Your task to perform on an android device: Show me the alarms in the clock app Image 0: 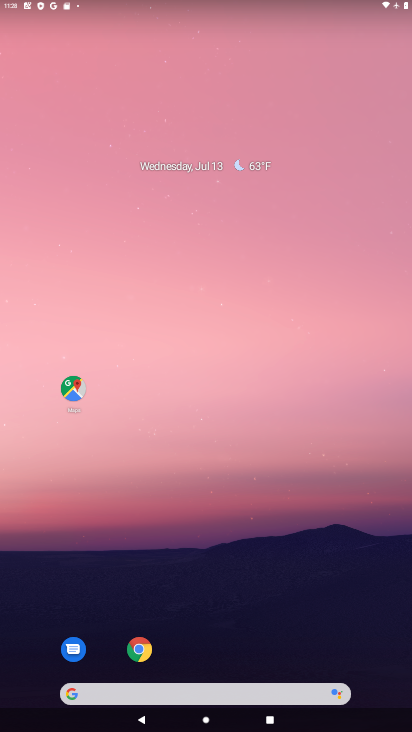
Step 0: drag from (248, 610) to (280, 271)
Your task to perform on an android device: Show me the alarms in the clock app Image 1: 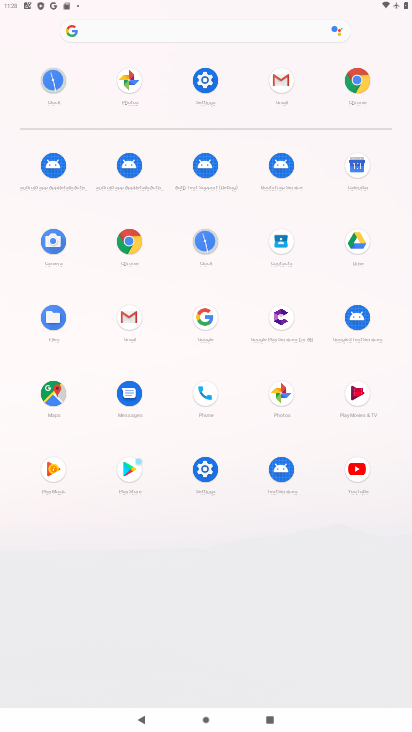
Step 1: click (204, 244)
Your task to perform on an android device: Show me the alarms in the clock app Image 2: 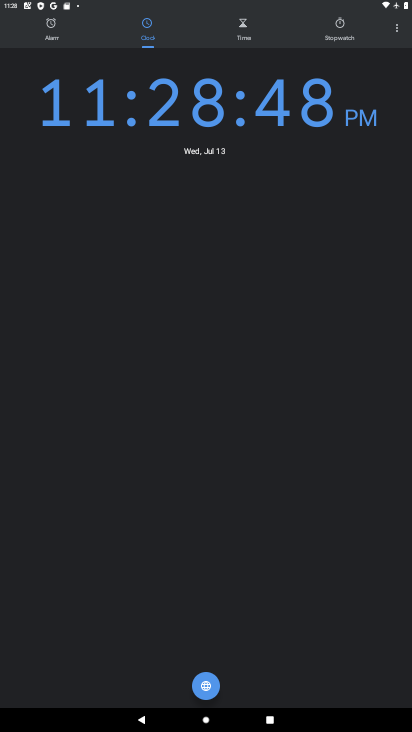
Step 2: click (59, 25)
Your task to perform on an android device: Show me the alarms in the clock app Image 3: 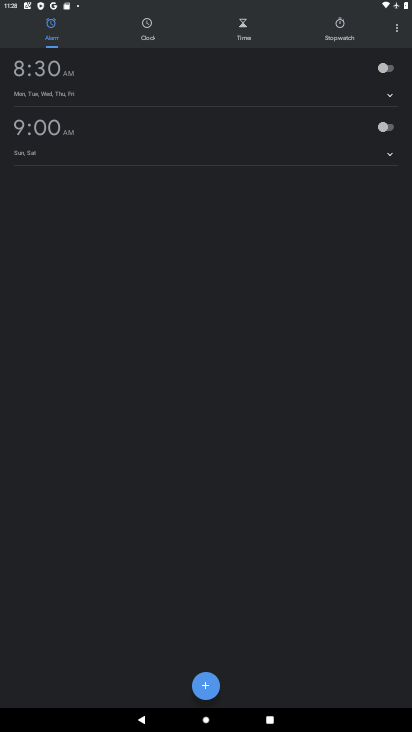
Step 3: task complete